Your task to perform on an android device: Open ESPN.com Image 0: 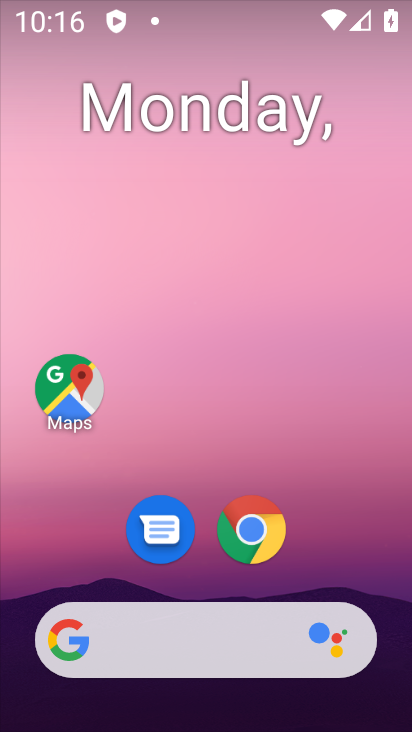
Step 0: click (259, 531)
Your task to perform on an android device: Open ESPN.com Image 1: 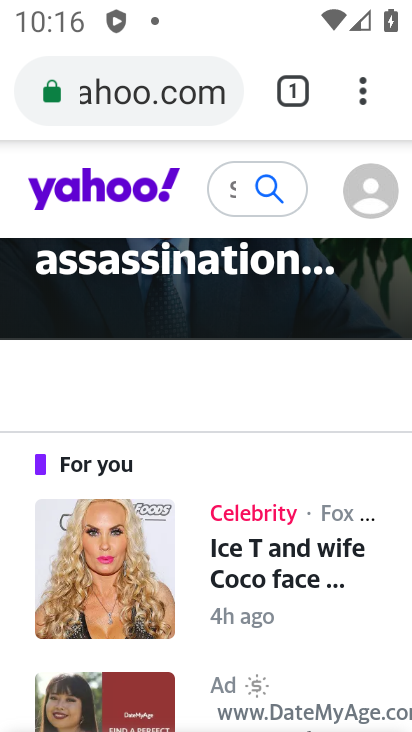
Step 1: click (363, 93)
Your task to perform on an android device: Open ESPN.com Image 2: 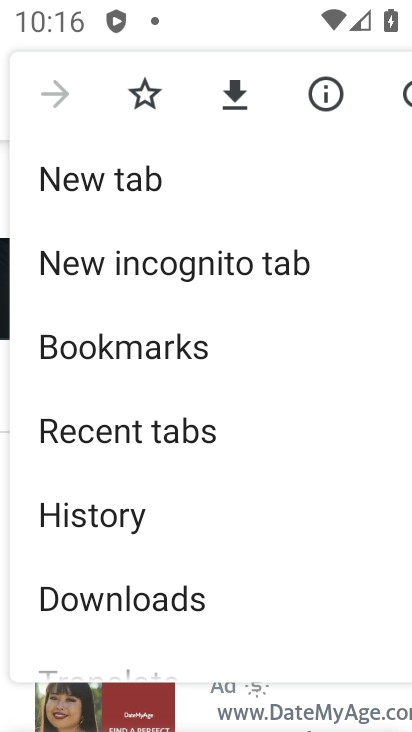
Step 2: drag from (243, 553) to (235, 243)
Your task to perform on an android device: Open ESPN.com Image 3: 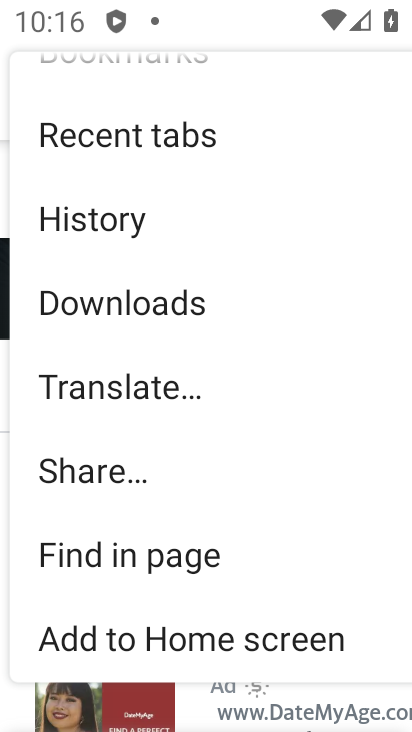
Step 3: drag from (271, 486) to (261, 108)
Your task to perform on an android device: Open ESPN.com Image 4: 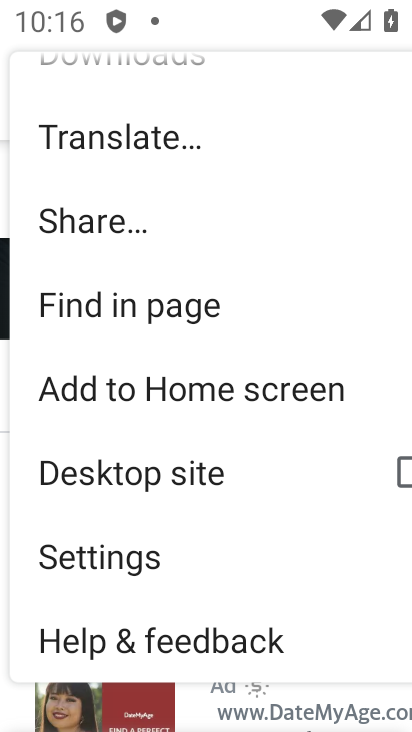
Step 4: drag from (241, 172) to (288, 548)
Your task to perform on an android device: Open ESPN.com Image 5: 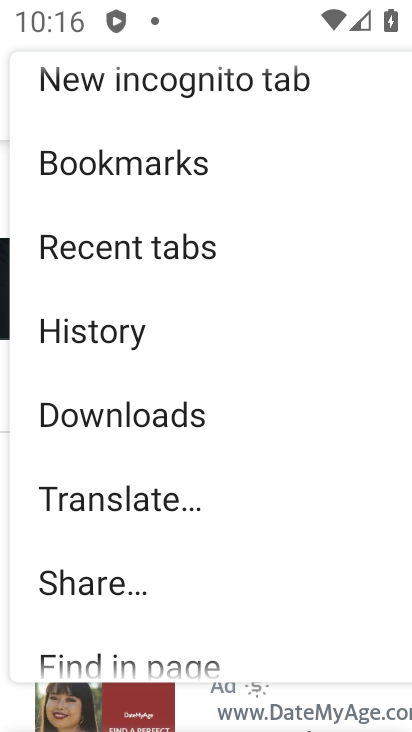
Step 5: drag from (226, 313) to (236, 452)
Your task to perform on an android device: Open ESPN.com Image 6: 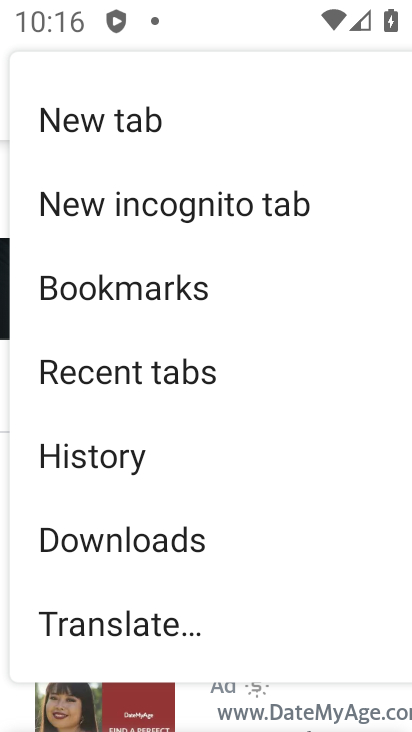
Step 6: drag from (238, 192) to (328, 686)
Your task to perform on an android device: Open ESPN.com Image 7: 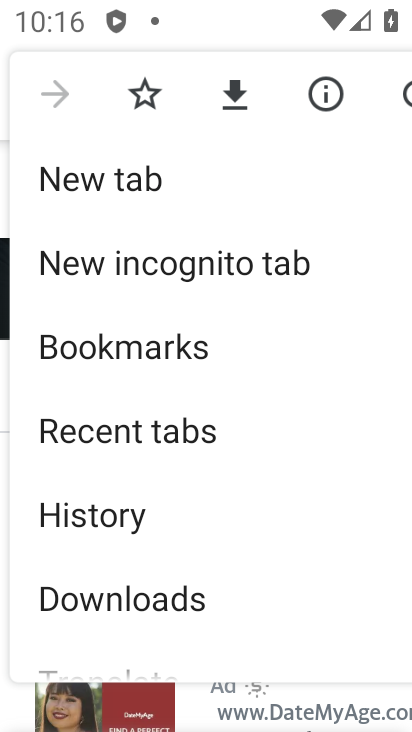
Step 7: click (106, 179)
Your task to perform on an android device: Open ESPN.com Image 8: 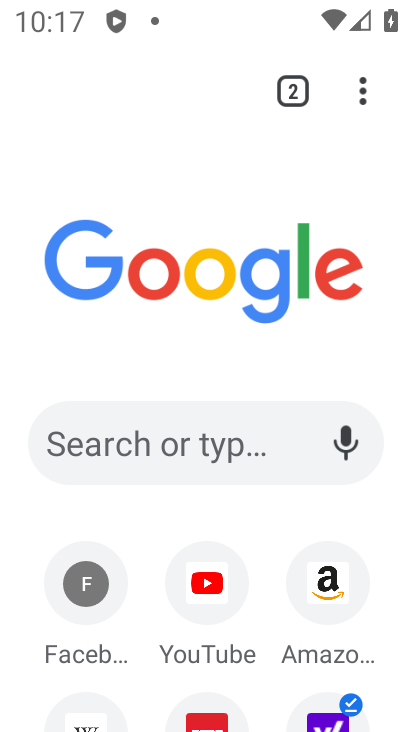
Step 8: drag from (151, 673) to (165, 383)
Your task to perform on an android device: Open ESPN.com Image 9: 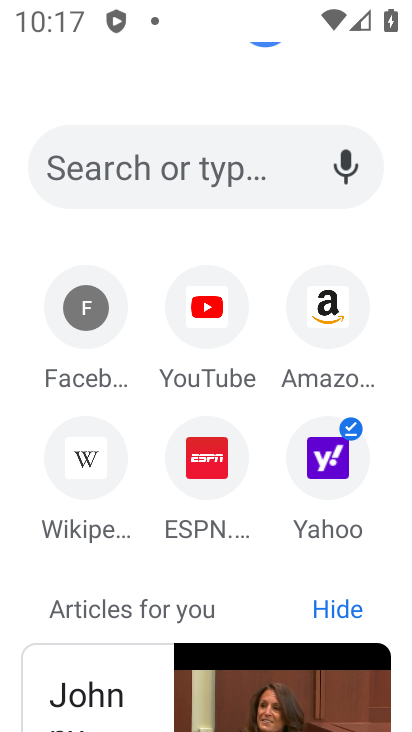
Step 9: click (205, 480)
Your task to perform on an android device: Open ESPN.com Image 10: 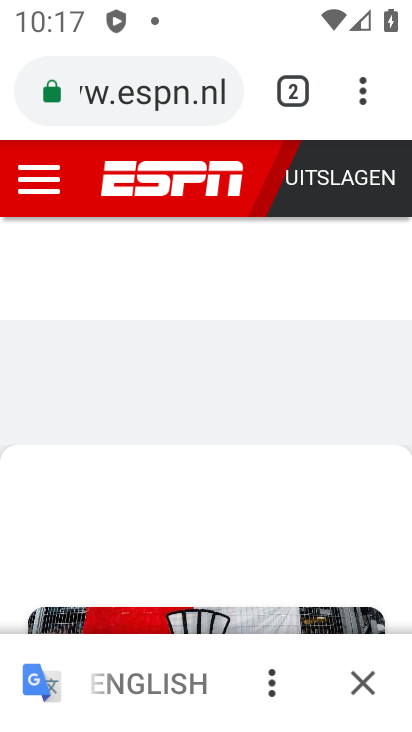
Step 10: task complete